Your task to perform on an android device: choose inbox layout in the gmail app Image 0: 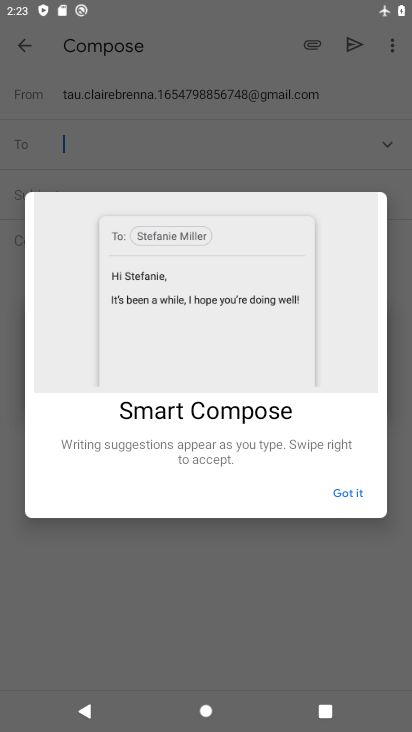
Step 0: press home button
Your task to perform on an android device: choose inbox layout in the gmail app Image 1: 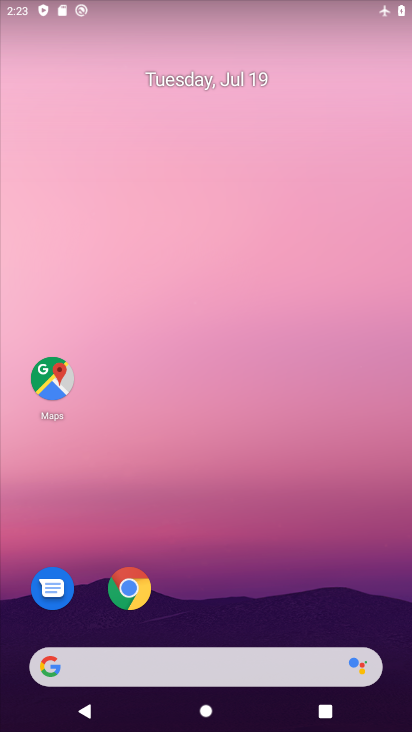
Step 1: drag from (229, 631) to (231, 16)
Your task to perform on an android device: choose inbox layout in the gmail app Image 2: 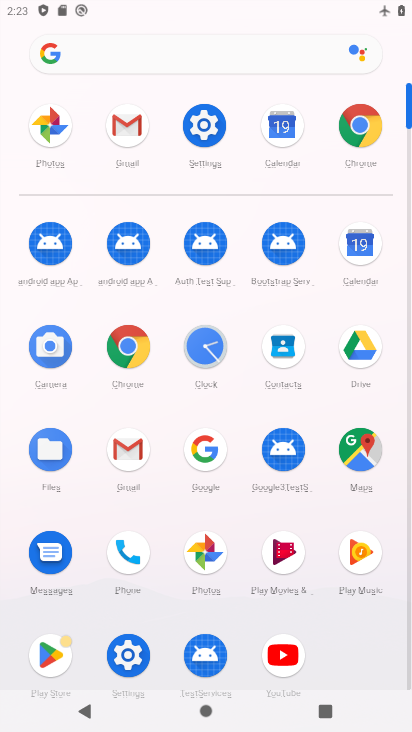
Step 2: click (127, 137)
Your task to perform on an android device: choose inbox layout in the gmail app Image 3: 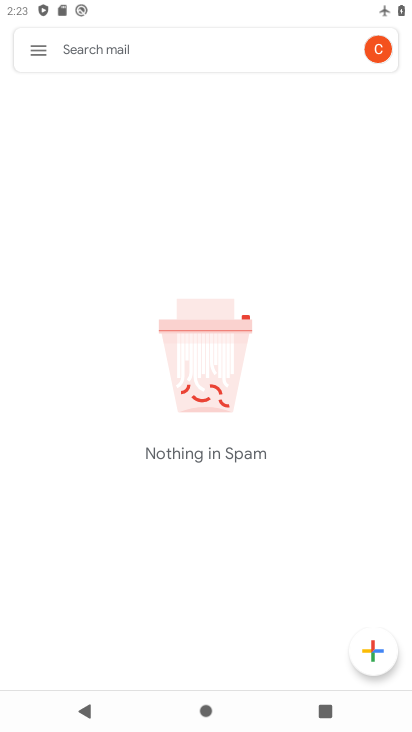
Step 3: click (25, 52)
Your task to perform on an android device: choose inbox layout in the gmail app Image 4: 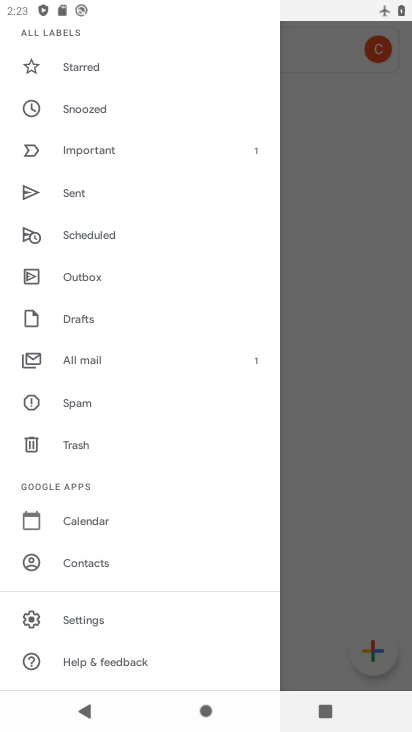
Step 4: click (80, 622)
Your task to perform on an android device: choose inbox layout in the gmail app Image 5: 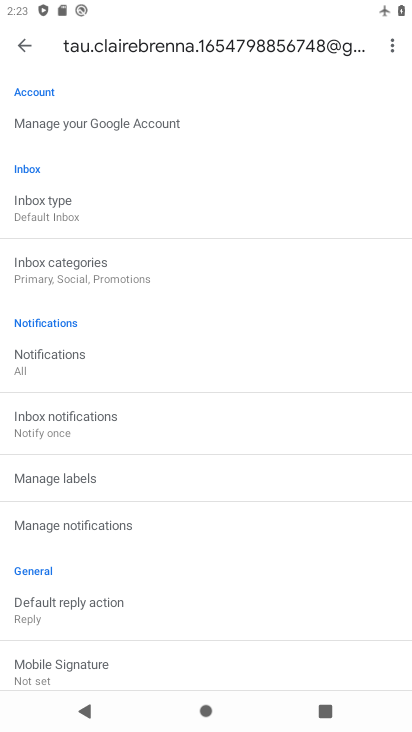
Step 5: click (59, 203)
Your task to perform on an android device: choose inbox layout in the gmail app Image 6: 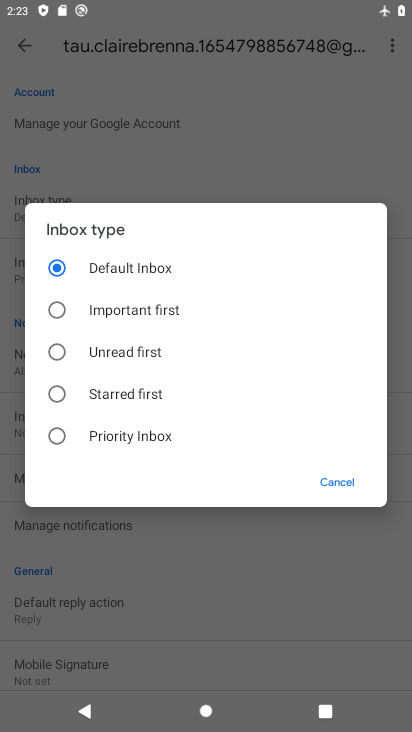
Step 6: click (64, 310)
Your task to perform on an android device: choose inbox layout in the gmail app Image 7: 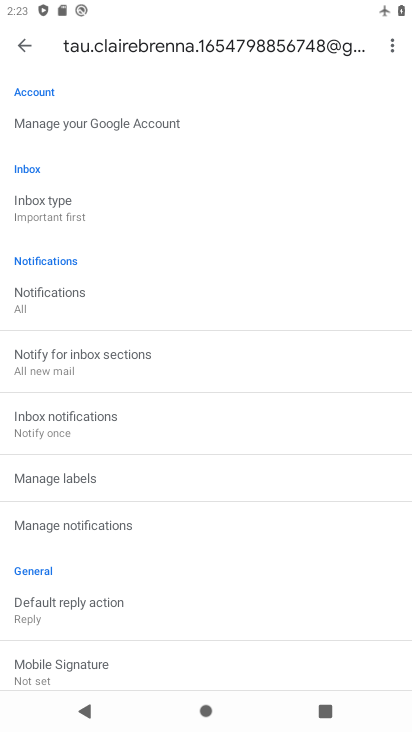
Step 7: task complete